Your task to perform on an android device: Show me the alarms in the clock app Image 0: 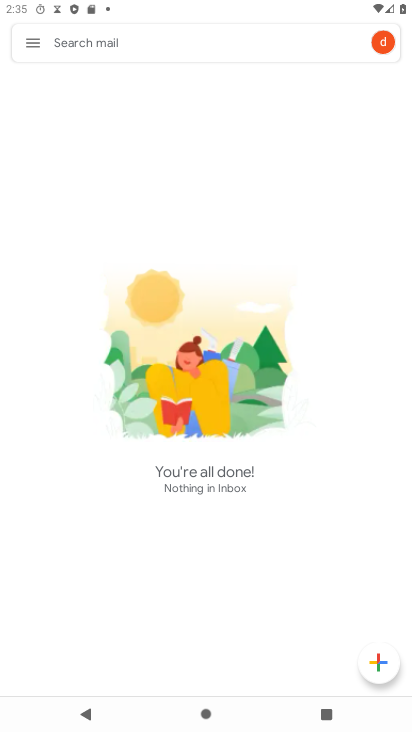
Step 0: press home button
Your task to perform on an android device: Show me the alarms in the clock app Image 1: 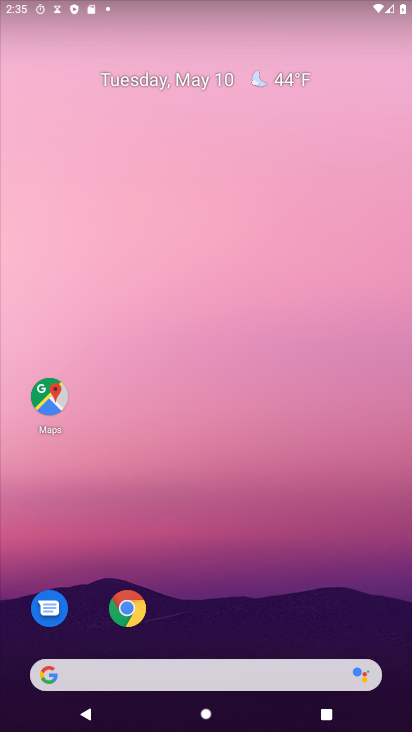
Step 1: drag from (246, 578) to (235, 82)
Your task to perform on an android device: Show me the alarms in the clock app Image 2: 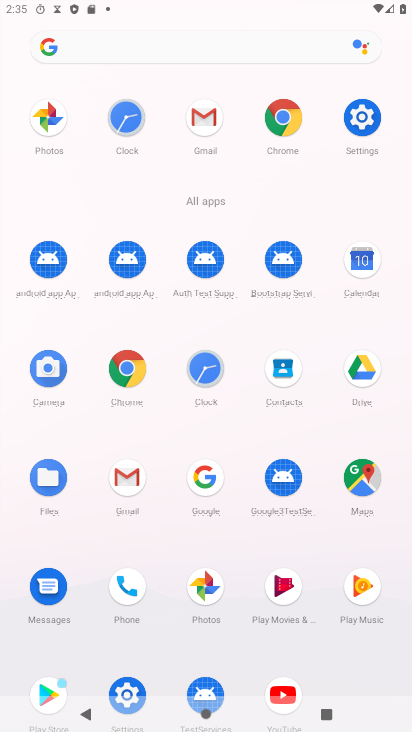
Step 2: click (131, 120)
Your task to perform on an android device: Show me the alarms in the clock app Image 3: 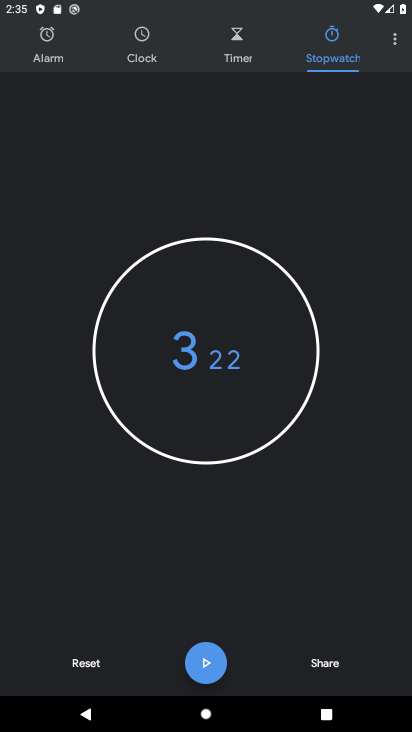
Step 3: click (52, 44)
Your task to perform on an android device: Show me the alarms in the clock app Image 4: 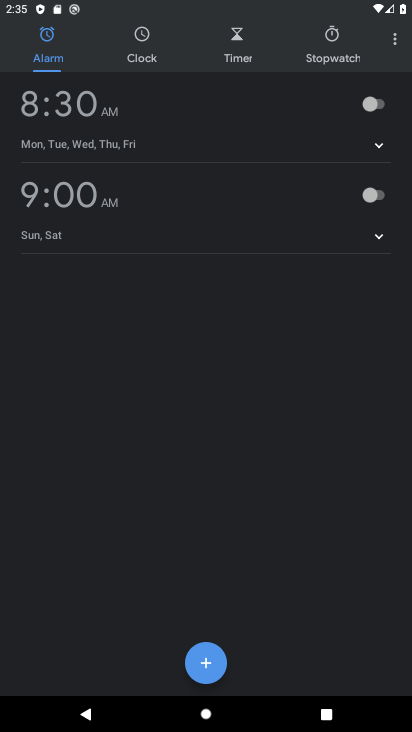
Step 4: task complete